Your task to perform on an android device: see tabs open on other devices in the chrome app Image 0: 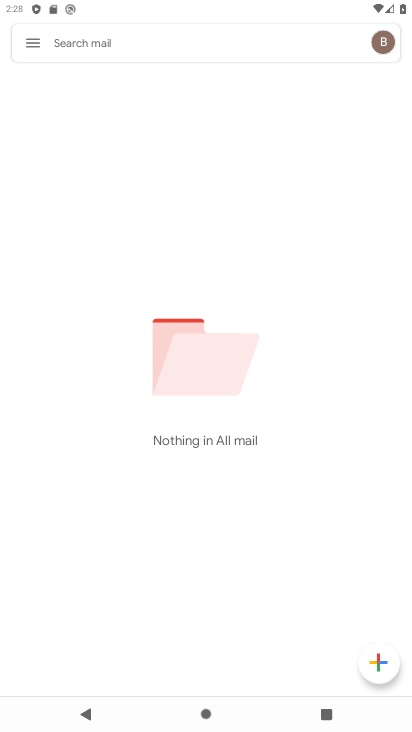
Step 0: press home button
Your task to perform on an android device: see tabs open on other devices in the chrome app Image 1: 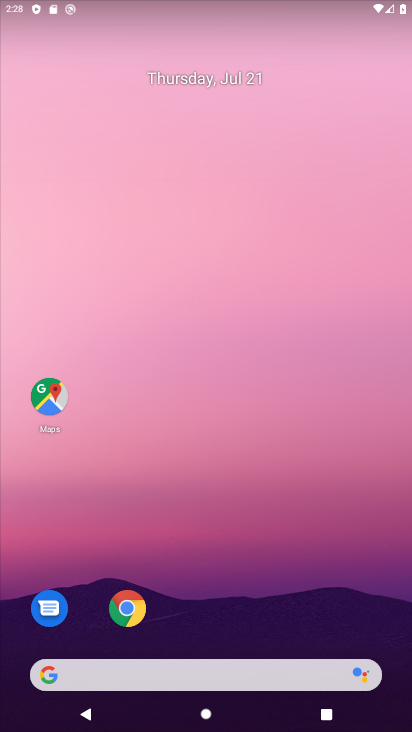
Step 1: click (136, 600)
Your task to perform on an android device: see tabs open on other devices in the chrome app Image 2: 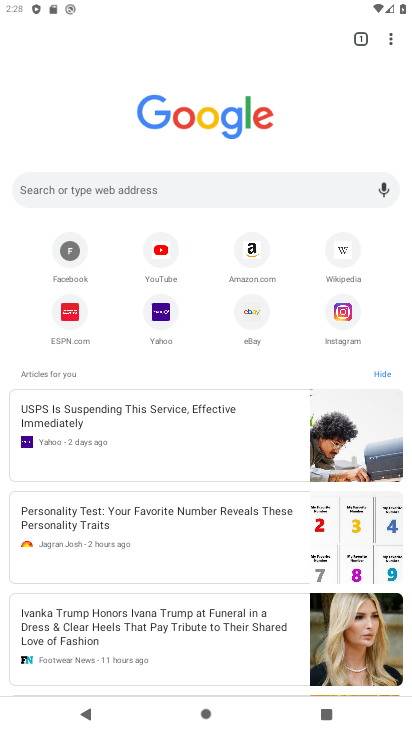
Step 2: task complete